Your task to perform on an android device: Go to Yahoo.com Image 0: 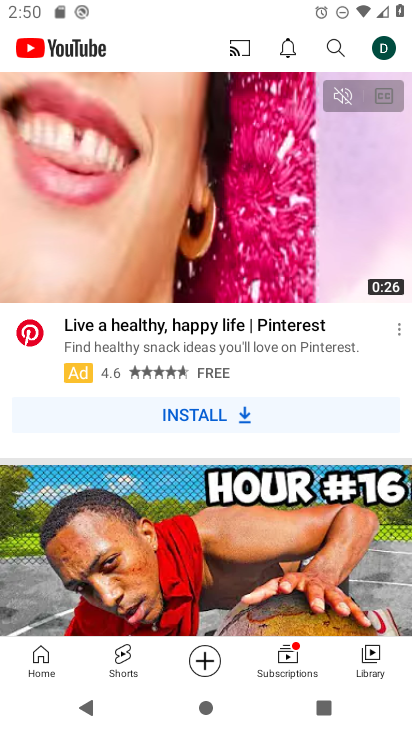
Step 0: press home button
Your task to perform on an android device: Go to Yahoo.com Image 1: 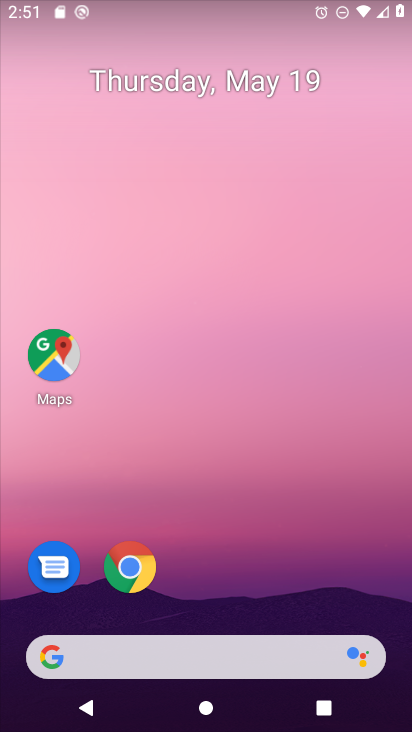
Step 1: click (291, 665)
Your task to perform on an android device: Go to Yahoo.com Image 2: 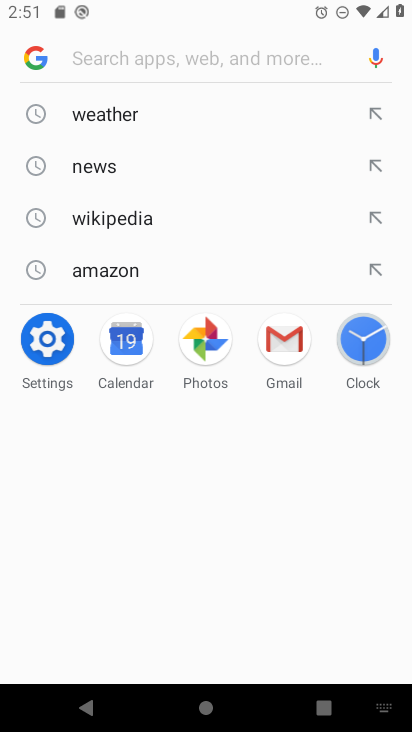
Step 2: type "yahoo.com"
Your task to perform on an android device: Go to Yahoo.com Image 3: 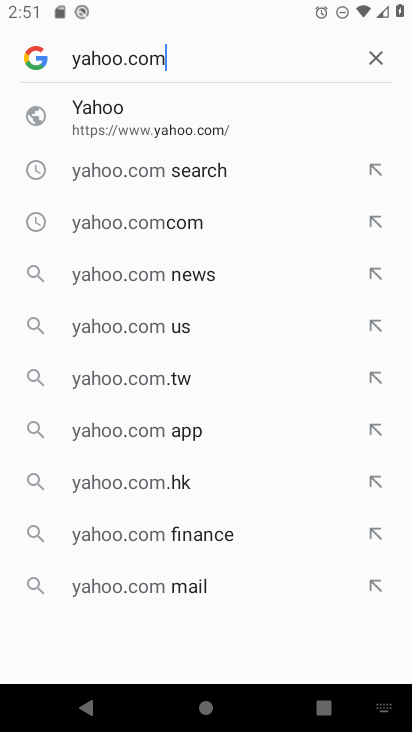
Step 3: click (92, 109)
Your task to perform on an android device: Go to Yahoo.com Image 4: 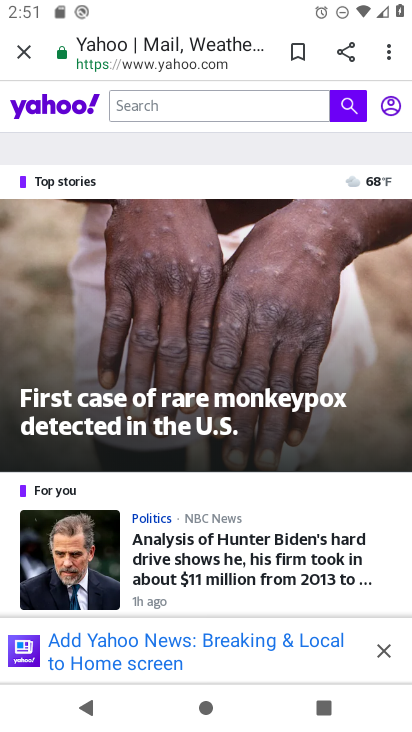
Step 4: task complete